Your task to perform on an android device: Go to notification settings Image 0: 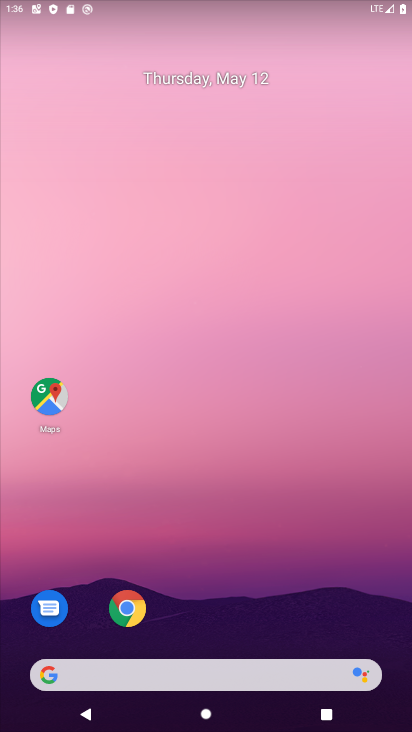
Step 0: drag from (274, 508) to (276, 27)
Your task to perform on an android device: Go to notification settings Image 1: 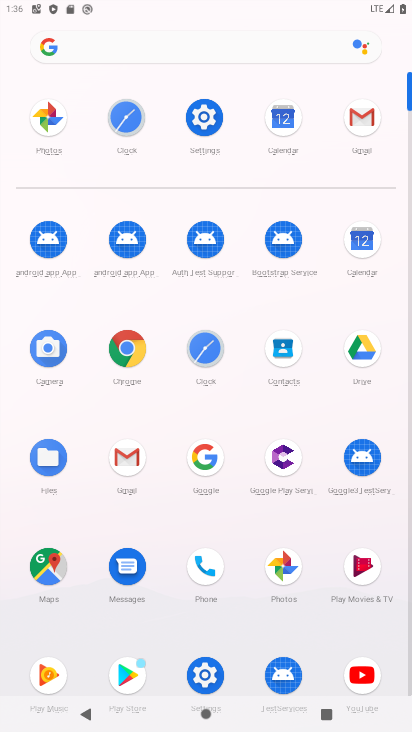
Step 1: click (199, 117)
Your task to perform on an android device: Go to notification settings Image 2: 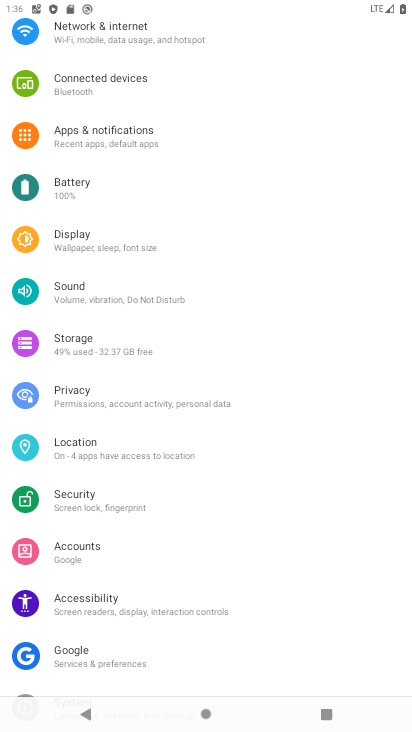
Step 2: click (132, 130)
Your task to perform on an android device: Go to notification settings Image 3: 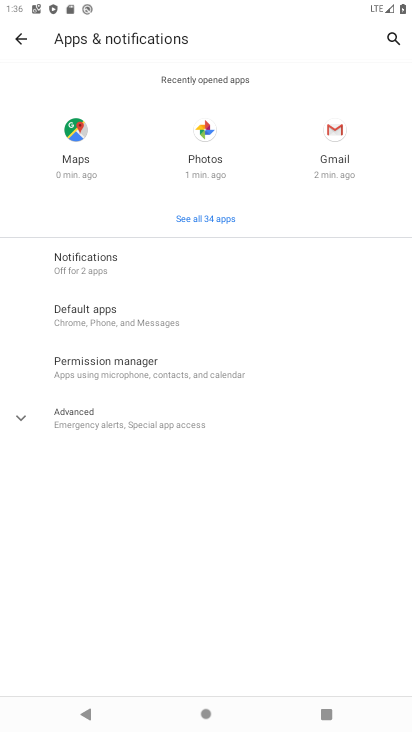
Step 3: task complete